Your task to perform on an android device: Go to accessibility settings Image 0: 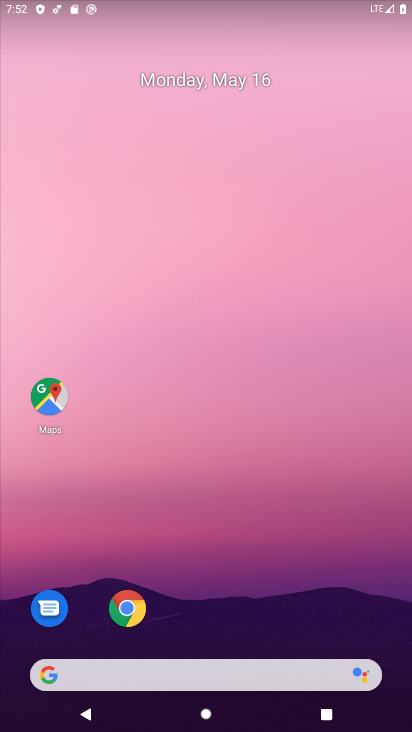
Step 0: drag from (230, 600) to (188, 85)
Your task to perform on an android device: Go to accessibility settings Image 1: 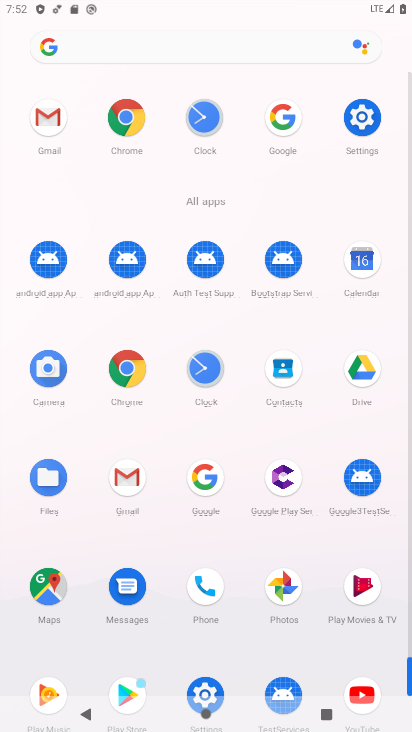
Step 1: click (363, 118)
Your task to perform on an android device: Go to accessibility settings Image 2: 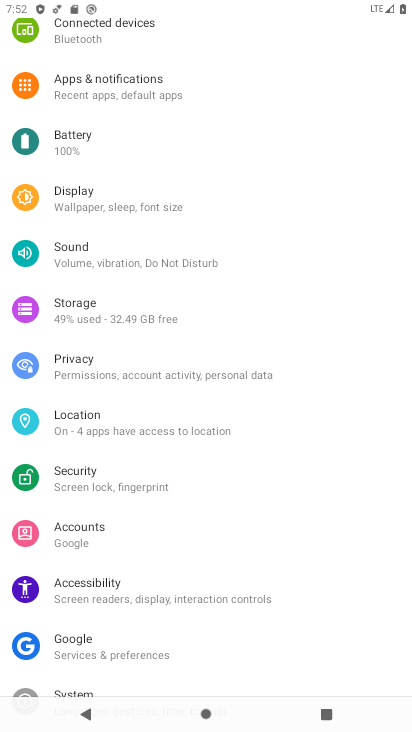
Step 2: click (121, 578)
Your task to perform on an android device: Go to accessibility settings Image 3: 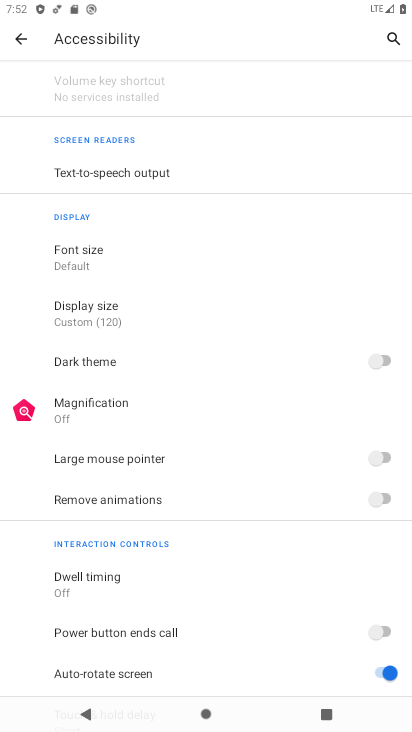
Step 3: task complete